Your task to perform on an android device: Open Reddit.com Image 0: 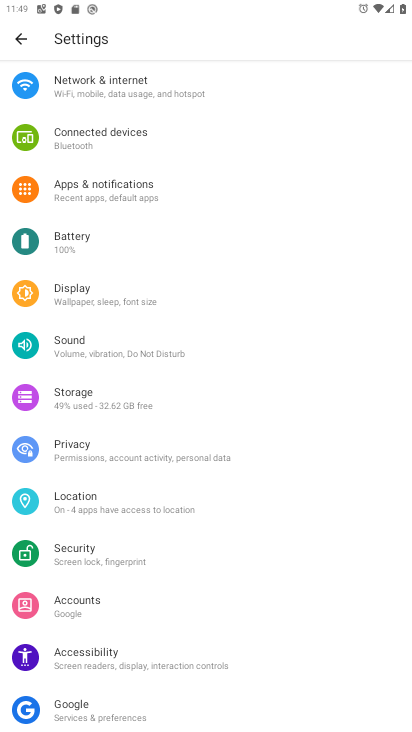
Step 0: click (85, 565)
Your task to perform on an android device: Open Reddit.com Image 1: 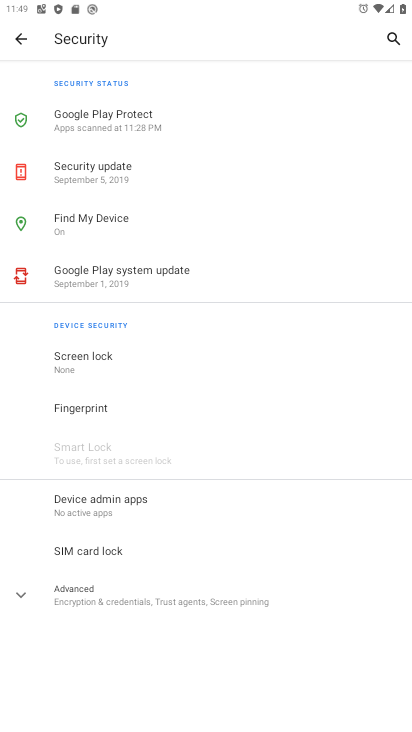
Step 1: press home button
Your task to perform on an android device: Open Reddit.com Image 2: 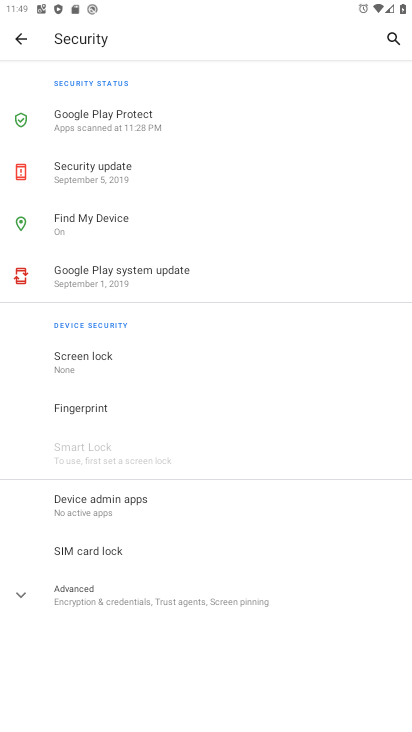
Step 2: press home button
Your task to perform on an android device: Open Reddit.com Image 3: 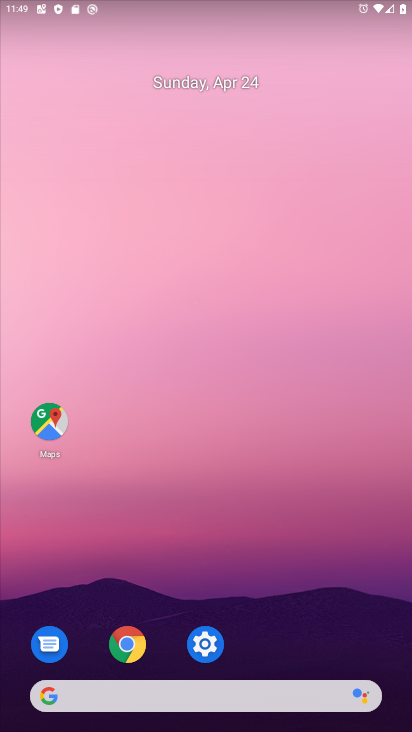
Step 3: drag from (284, 664) to (252, 135)
Your task to perform on an android device: Open Reddit.com Image 4: 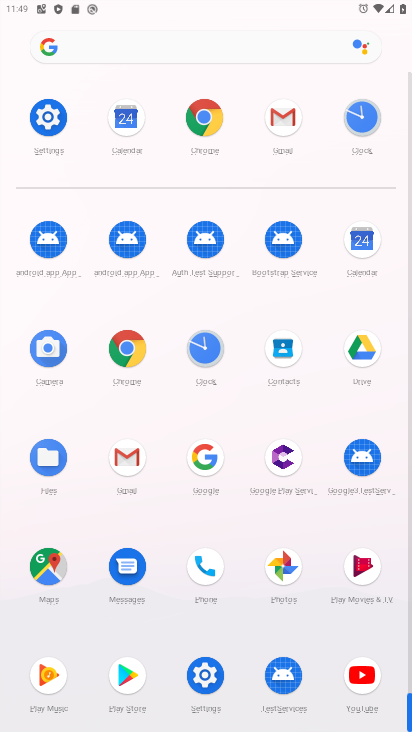
Step 4: click (129, 350)
Your task to perform on an android device: Open Reddit.com Image 5: 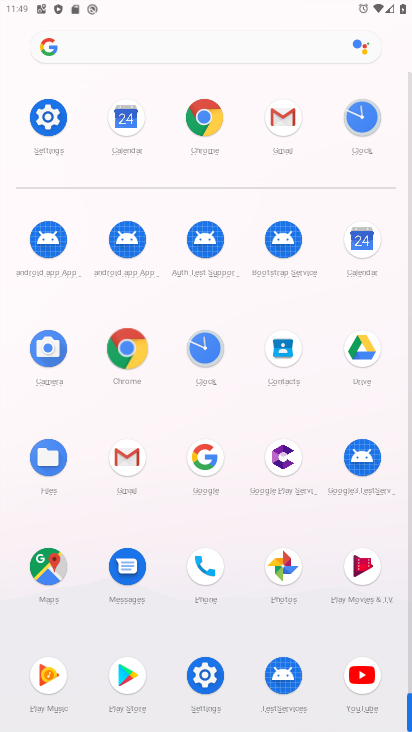
Step 5: click (129, 350)
Your task to perform on an android device: Open Reddit.com Image 6: 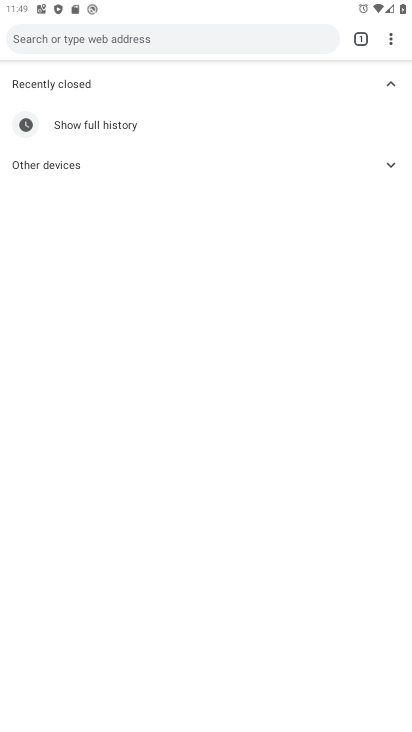
Step 6: press home button
Your task to perform on an android device: Open Reddit.com Image 7: 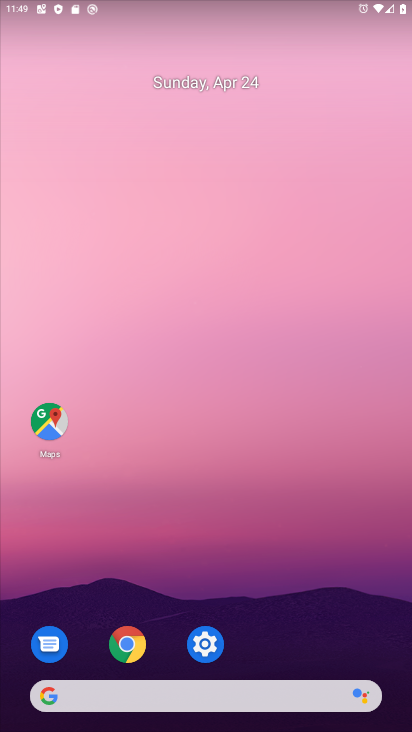
Step 7: drag from (278, 591) to (216, 125)
Your task to perform on an android device: Open Reddit.com Image 8: 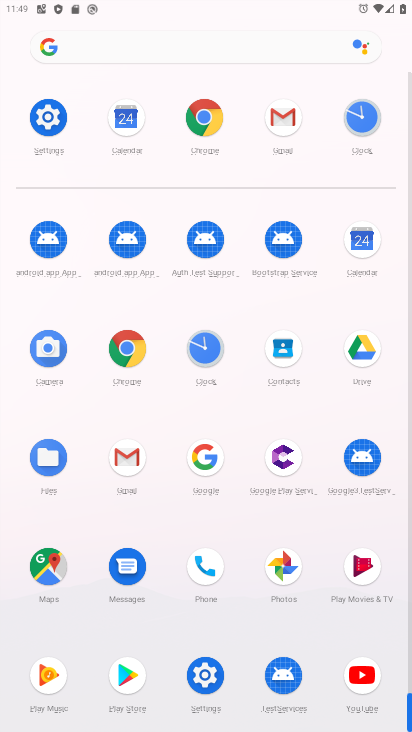
Step 8: drag from (204, 110) to (238, 163)
Your task to perform on an android device: Open Reddit.com Image 9: 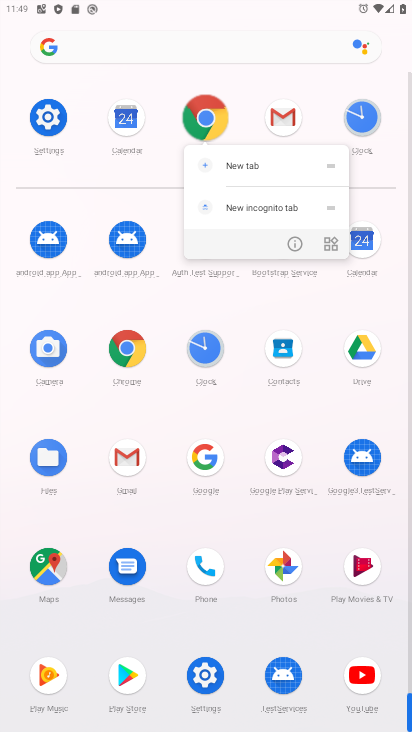
Step 9: click (238, 163)
Your task to perform on an android device: Open Reddit.com Image 10: 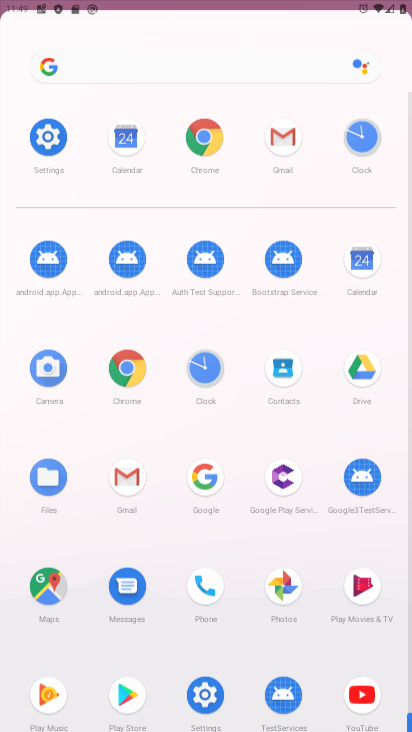
Step 10: click (242, 164)
Your task to perform on an android device: Open Reddit.com Image 11: 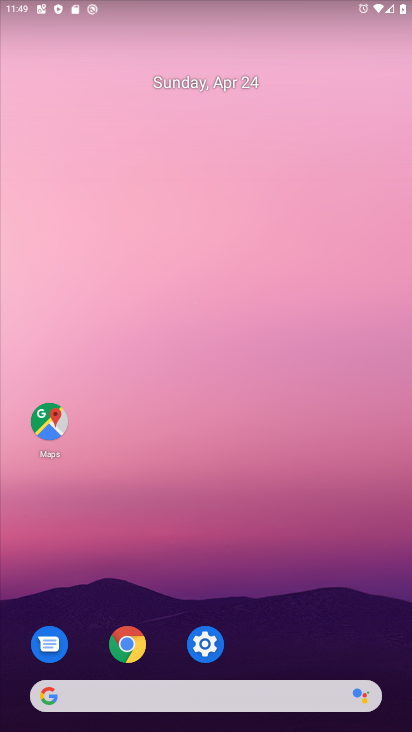
Step 11: drag from (255, 668) to (186, 142)
Your task to perform on an android device: Open Reddit.com Image 12: 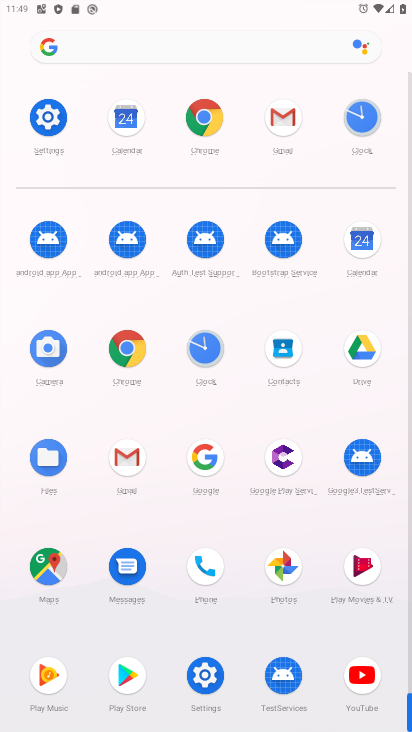
Step 12: drag from (266, 676) to (165, 82)
Your task to perform on an android device: Open Reddit.com Image 13: 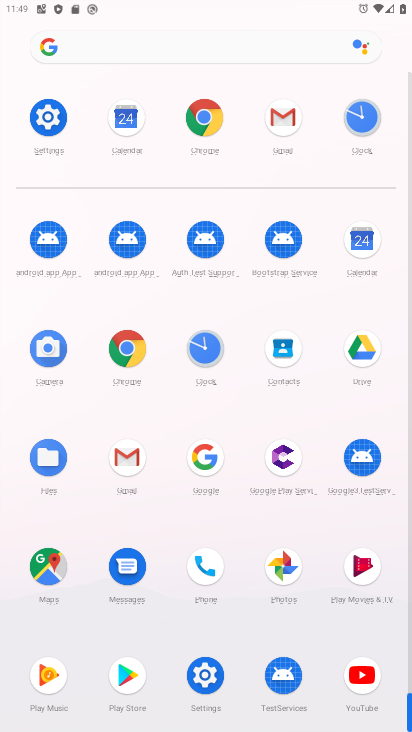
Step 13: click (210, 104)
Your task to perform on an android device: Open Reddit.com Image 14: 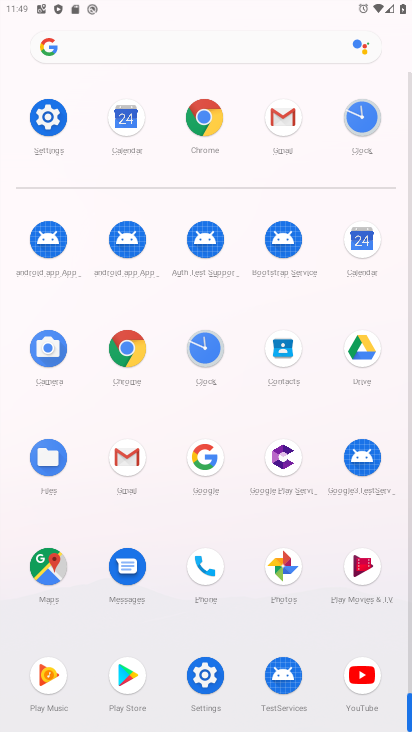
Step 14: click (205, 125)
Your task to perform on an android device: Open Reddit.com Image 15: 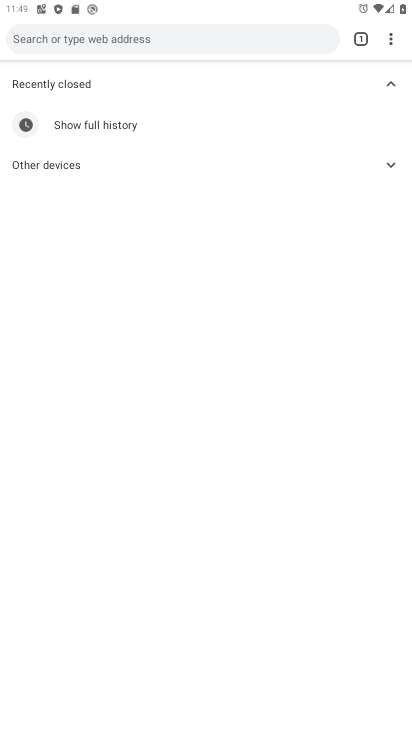
Step 15: click (60, 42)
Your task to perform on an android device: Open Reddit.com Image 16: 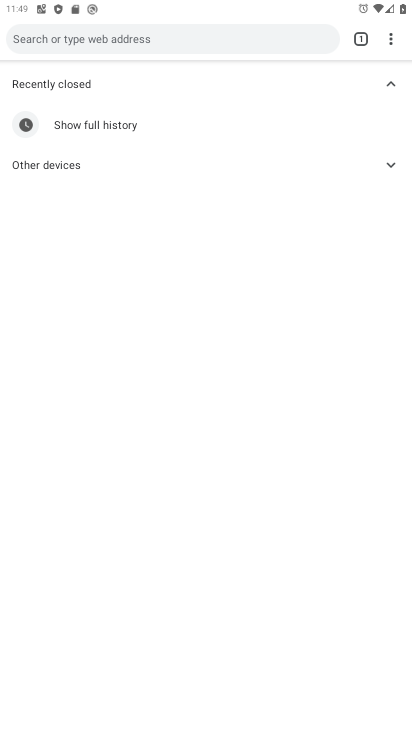
Step 16: click (59, 41)
Your task to perform on an android device: Open Reddit.com Image 17: 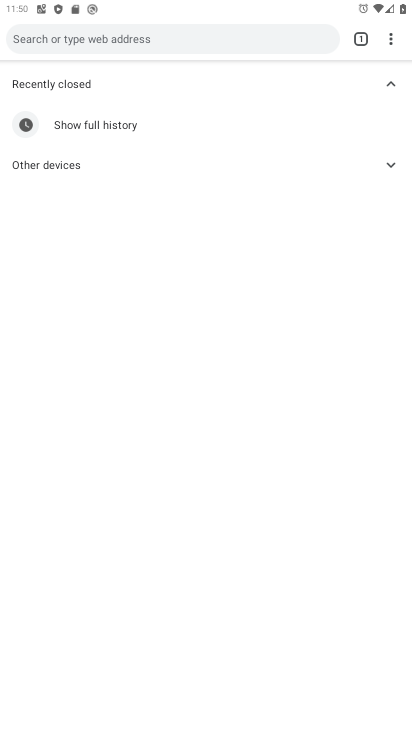
Step 17: click (57, 37)
Your task to perform on an android device: Open Reddit.com Image 18: 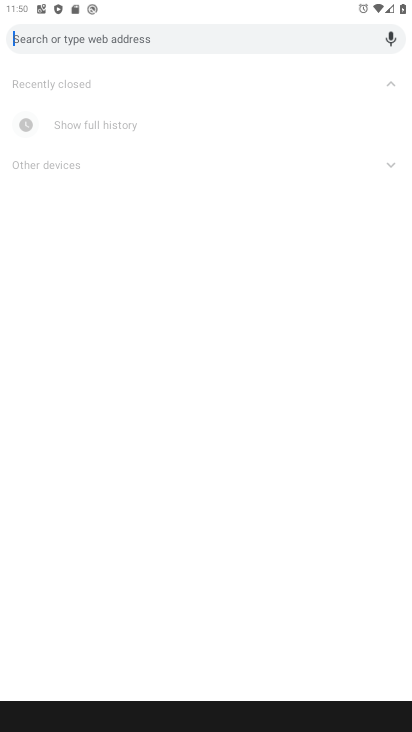
Step 18: click (55, 37)
Your task to perform on an android device: Open Reddit.com Image 19: 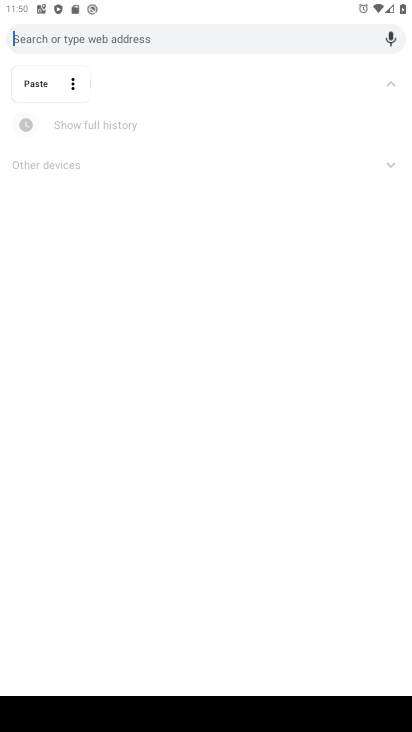
Step 19: type "www."
Your task to perform on an android device: Open Reddit.com Image 20: 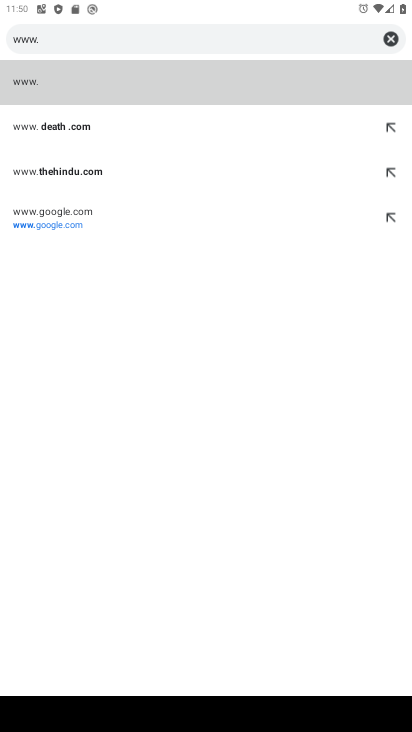
Step 20: type "reddit."
Your task to perform on an android device: Open Reddit.com Image 21: 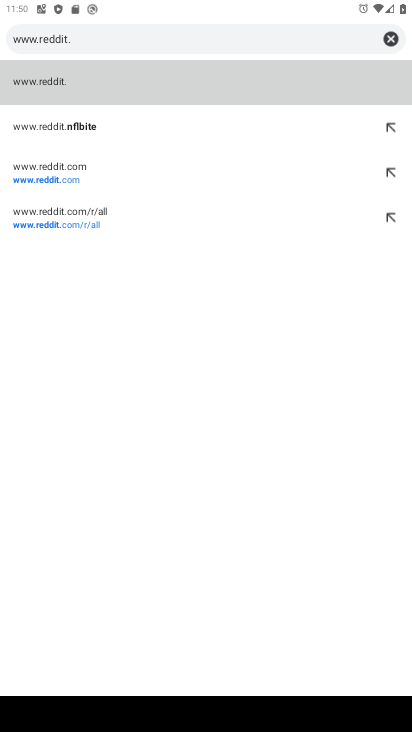
Step 21: click (49, 175)
Your task to perform on an android device: Open Reddit.com Image 22: 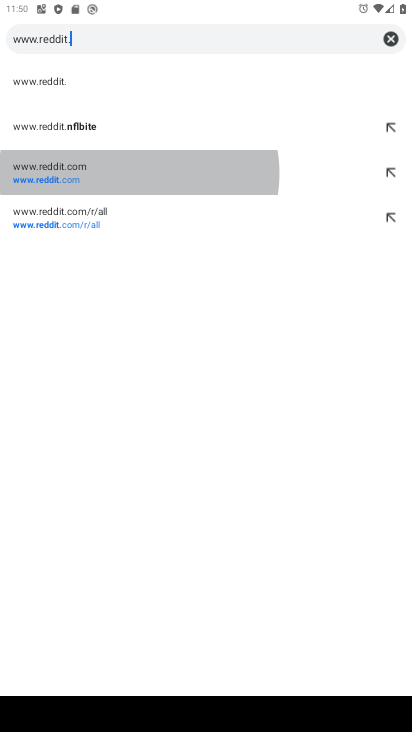
Step 22: click (49, 175)
Your task to perform on an android device: Open Reddit.com Image 23: 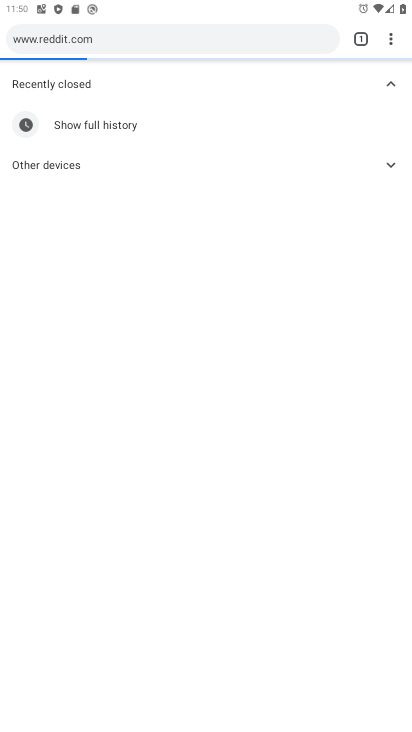
Step 23: click (48, 183)
Your task to perform on an android device: Open Reddit.com Image 24: 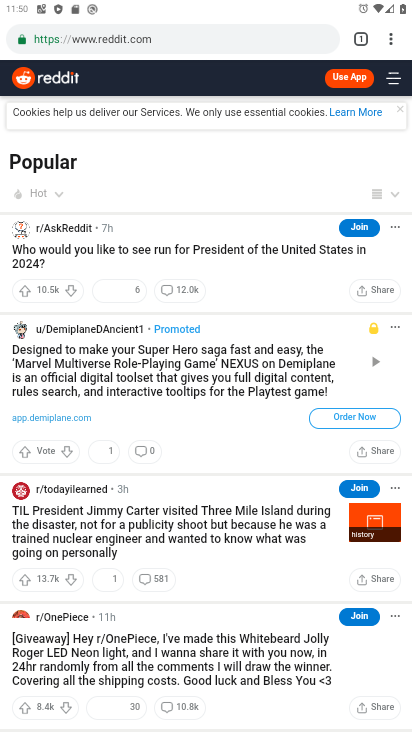
Step 24: task complete